Your task to perform on an android device: Go to CNN.com Image 0: 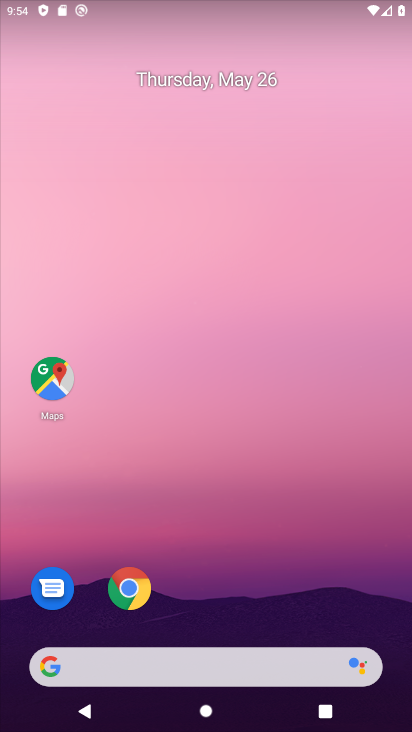
Step 0: drag from (200, 610) to (200, 261)
Your task to perform on an android device: Go to CNN.com Image 1: 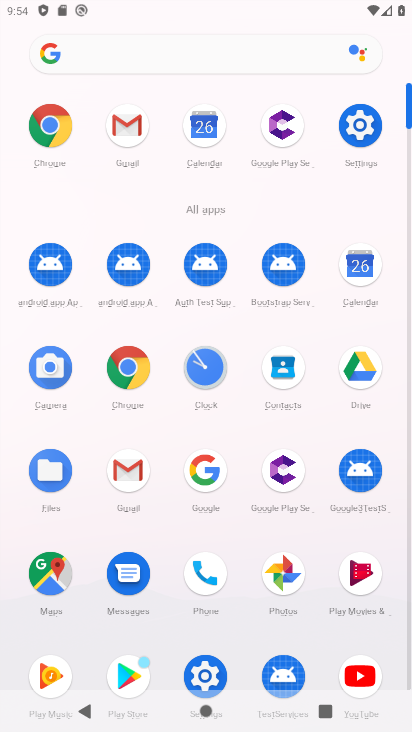
Step 1: click (204, 473)
Your task to perform on an android device: Go to CNN.com Image 2: 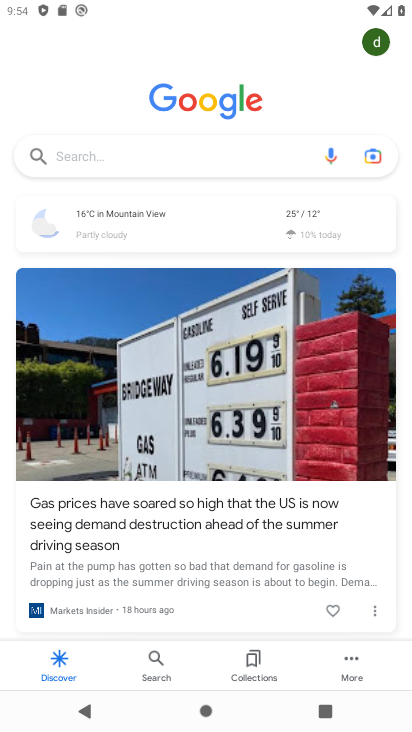
Step 2: click (172, 160)
Your task to perform on an android device: Go to CNN.com Image 3: 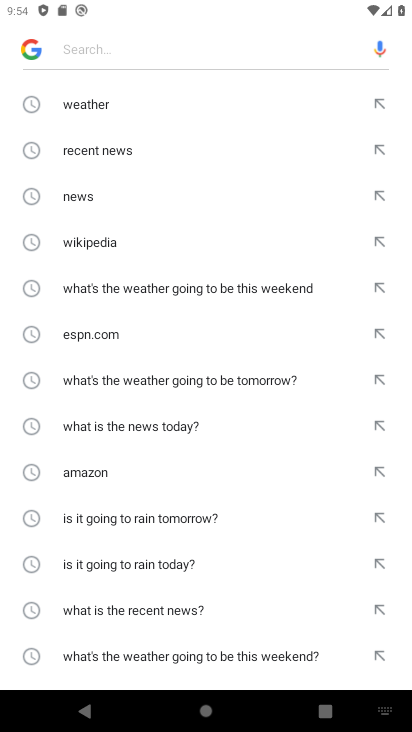
Step 3: drag from (109, 645) to (140, 225)
Your task to perform on an android device: Go to CNN.com Image 4: 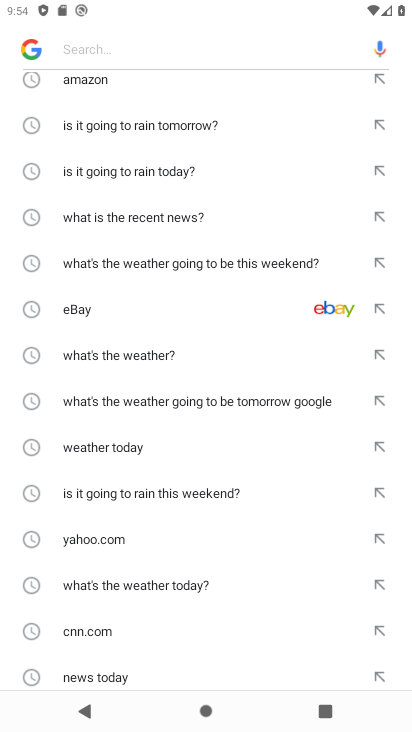
Step 4: click (98, 635)
Your task to perform on an android device: Go to CNN.com Image 5: 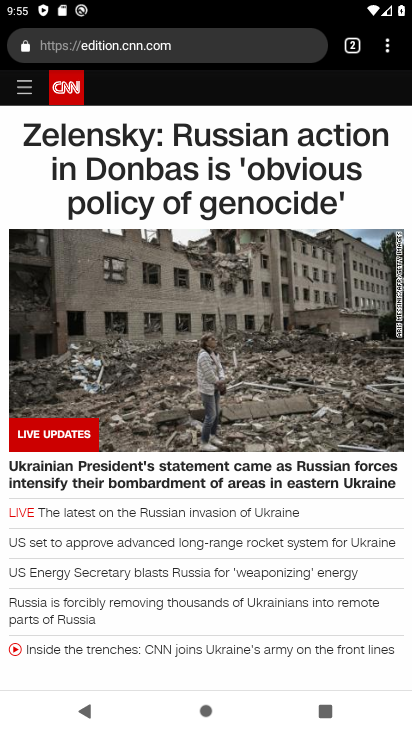
Step 5: task complete